Your task to perform on an android device: Do I have any events this weekend? Image 0: 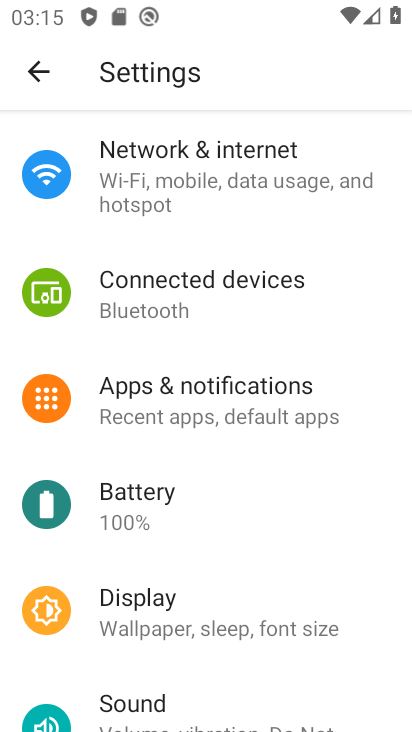
Step 0: press back button
Your task to perform on an android device: Do I have any events this weekend? Image 1: 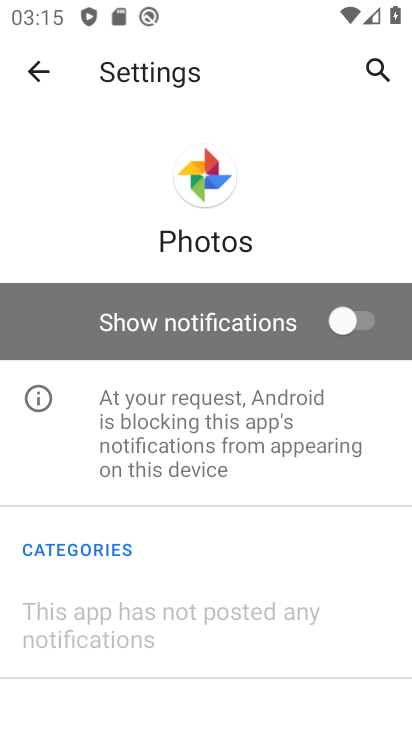
Step 1: press back button
Your task to perform on an android device: Do I have any events this weekend? Image 2: 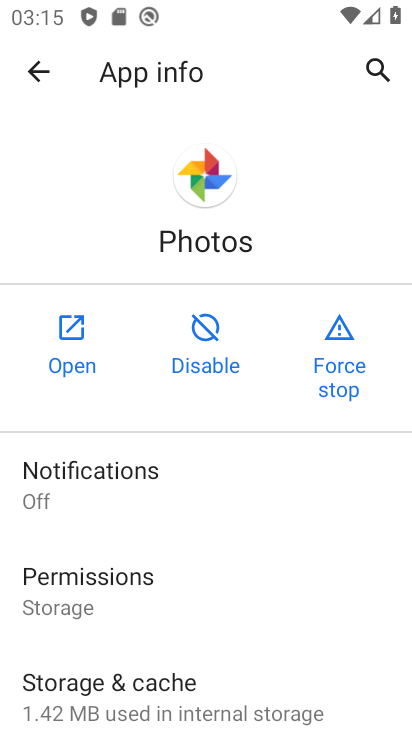
Step 2: press back button
Your task to perform on an android device: Do I have any events this weekend? Image 3: 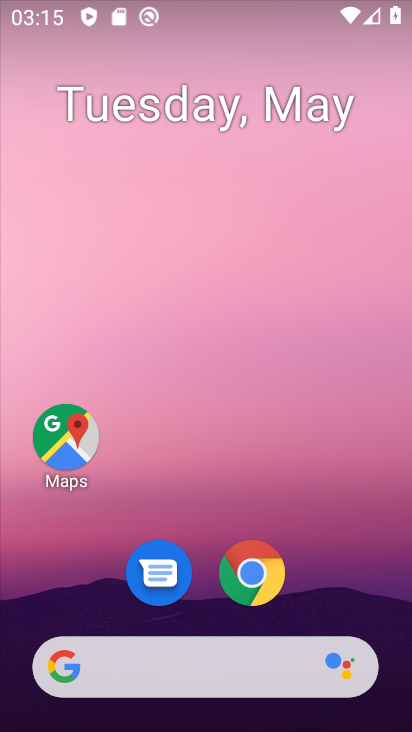
Step 3: drag from (227, 489) to (258, 0)
Your task to perform on an android device: Do I have any events this weekend? Image 4: 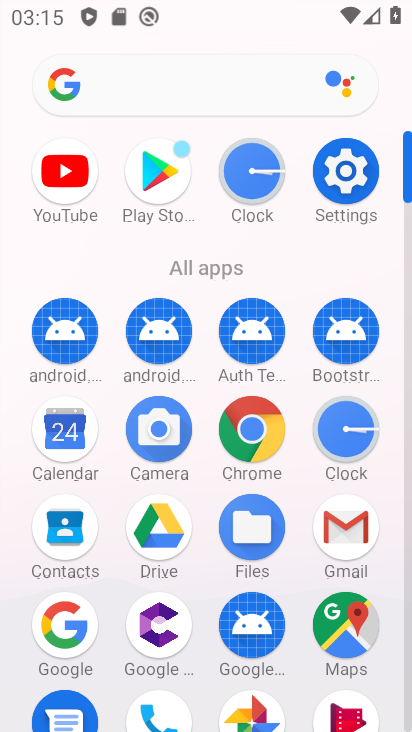
Step 4: click (51, 444)
Your task to perform on an android device: Do I have any events this weekend? Image 5: 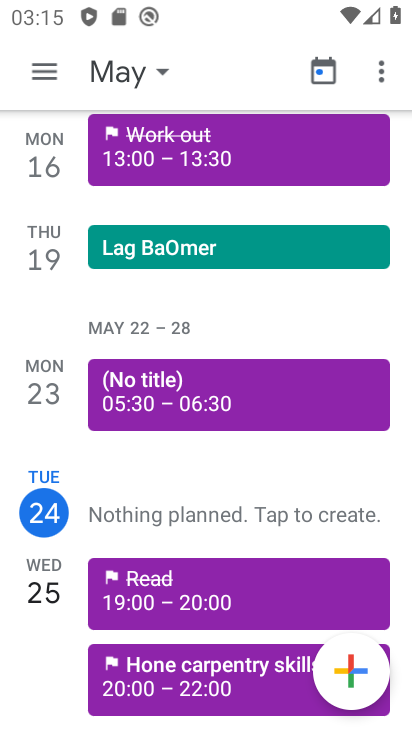
Step 5: drag from (164, 674) to (225, 351)
Your task to perform on an android device: Do I have any events this weekend? Image 6: 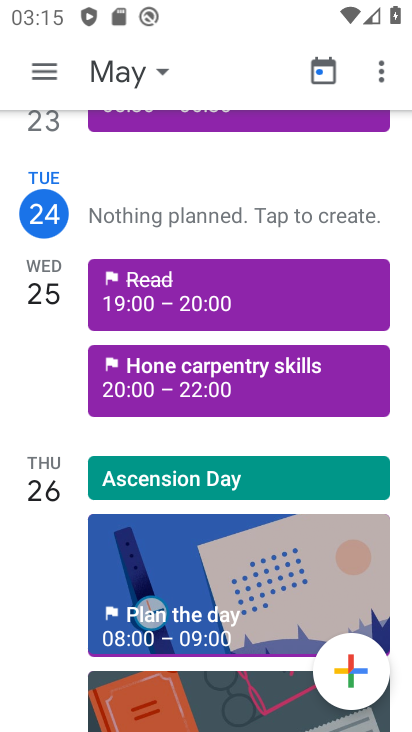
Step 6: drag from (215, 605) to (330, 77)
Your task to perform on an android device: Do I have any events this weekend? Image 7: 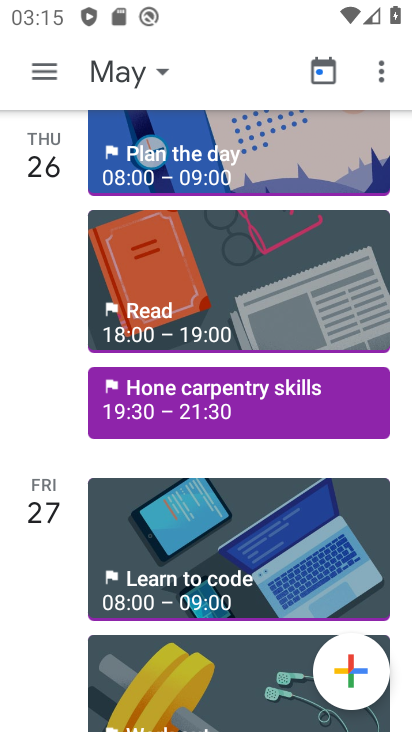
Step 7: drag from (220, 636) to (325, 51)
Your task to perform on an android device: Do I have any events this weekend? Image 8: 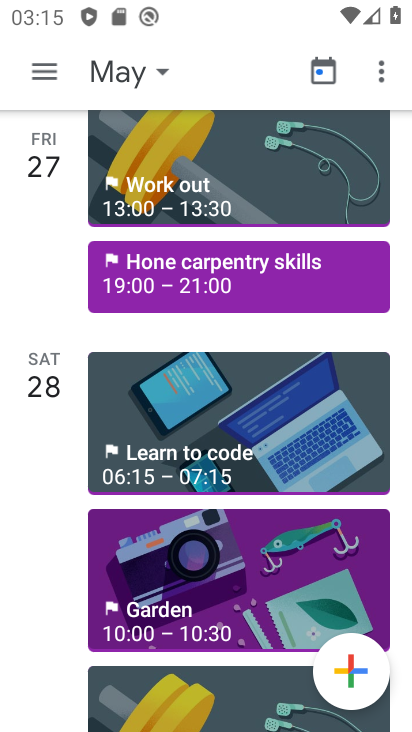
Step 8: drag from (218, 641) to (286, 92)
Your task to perform on an android device: Do I have any events this weekend? Image 9: 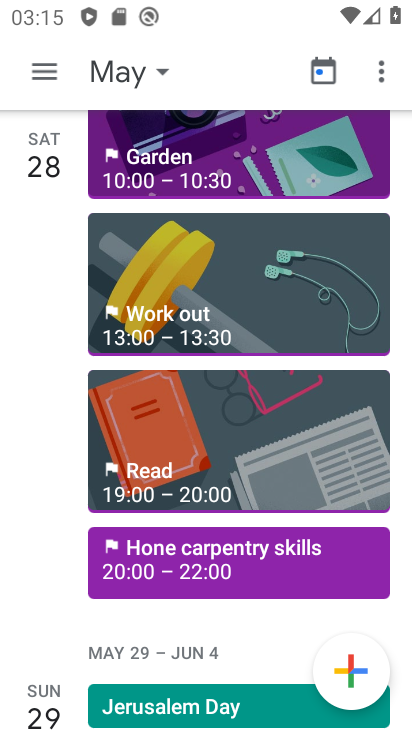
Step 9: drag from (173, 681) to (256, 152)
Your task to perform on an android device: Do I have any events this weekend? Image 10: 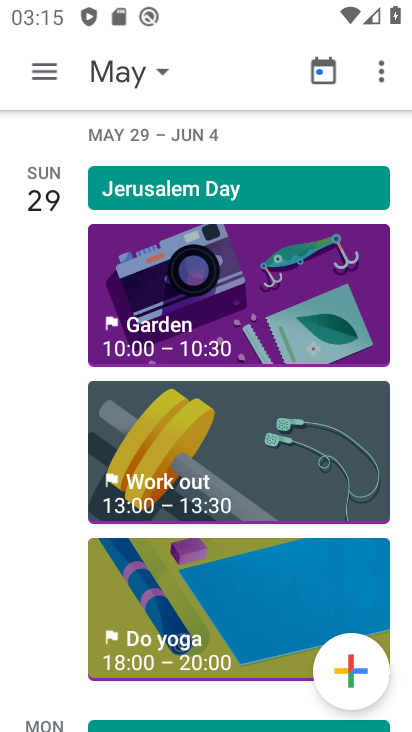
Step 10: drag from (253, 646) to (284, 284)
Your task to perform on an android device: Do I have any events this weekend? Image 11: 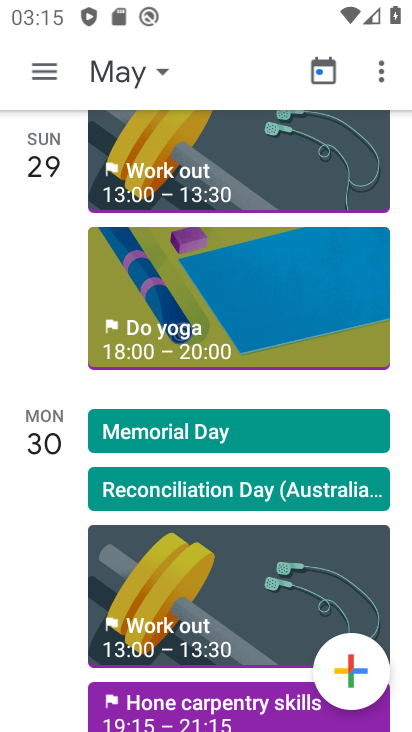
Step 11: click (172, 290)
Your task to perform on an android device: Do I have any events this weekend? Image 12: 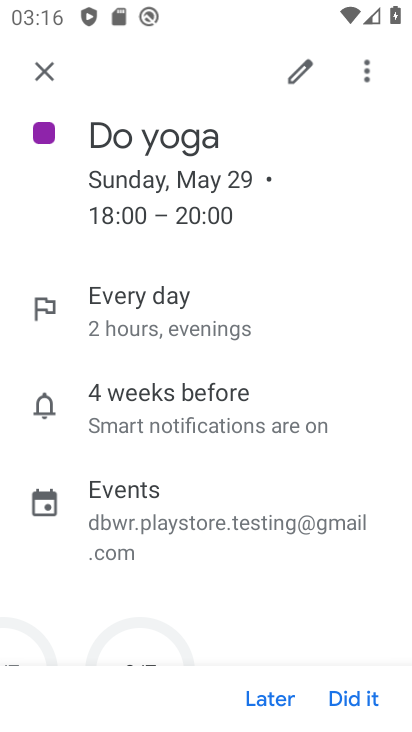
Step 12: task complete